Your task to perform on an android device: check battery use Image 0: 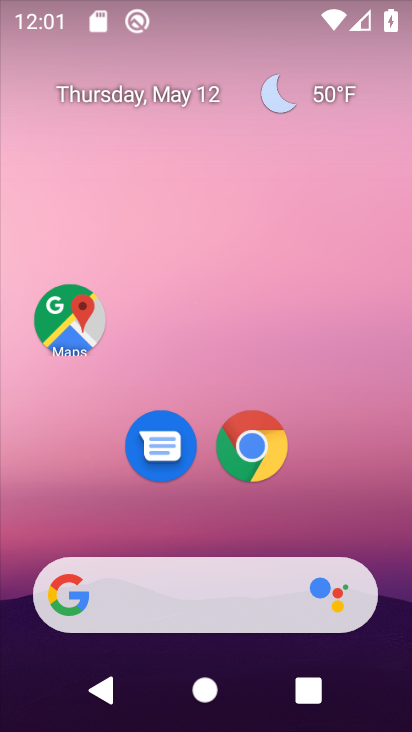
Step 0: drag from (327, 510) to (360, 187)
Your task to perform on an android device: check battery use Image 1: 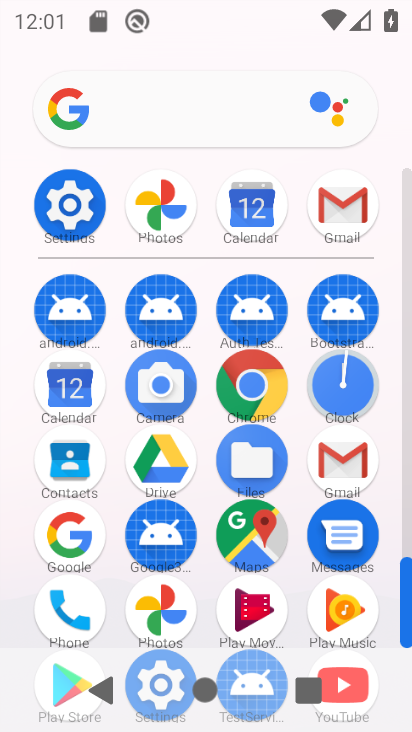
Step 1: click (86, 200)
Your task to perform on an android device: check battery use Image 2: 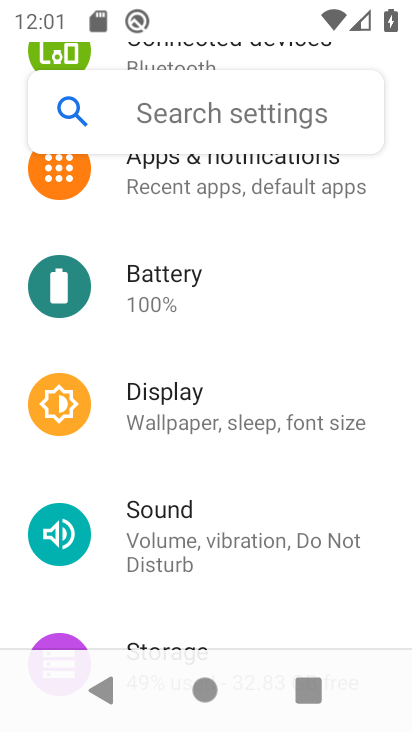
Step 2: click (187, 309)
Your task to perform on an android device: check battery use Image 3: 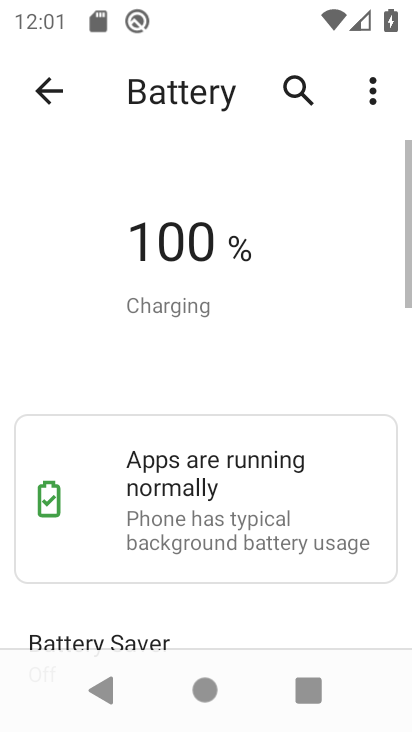
Step 3: click (378, 97)
Your task to perform on an android device: check battery use Image 4: 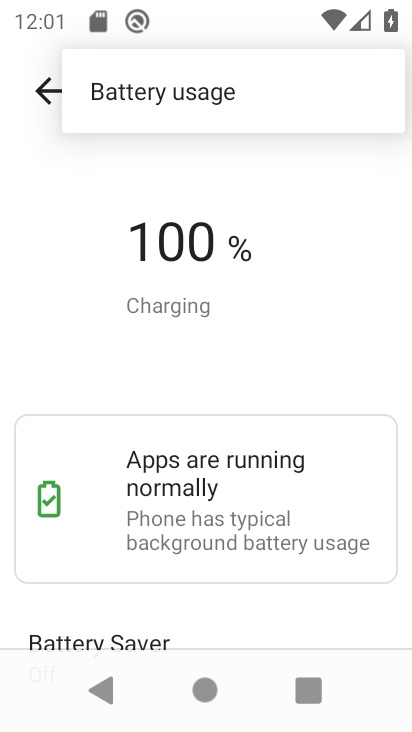
Step 4: click (241, 101)
Your task to perform on an android device: check battery use Image 5: 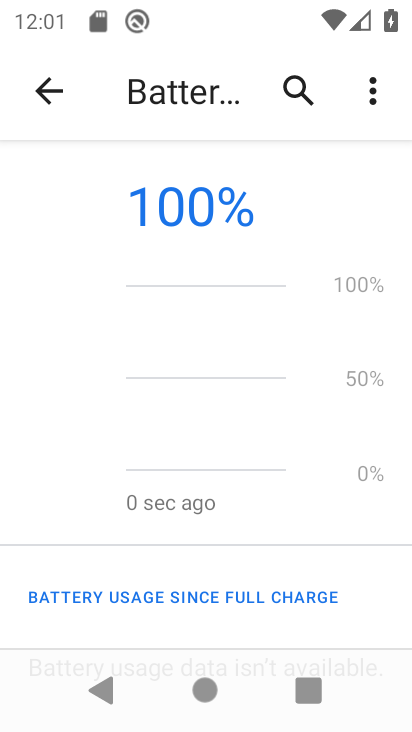
Step 5: task complete